Your task to perform on an android device: move an email to a new category in the gmail app Image 0: 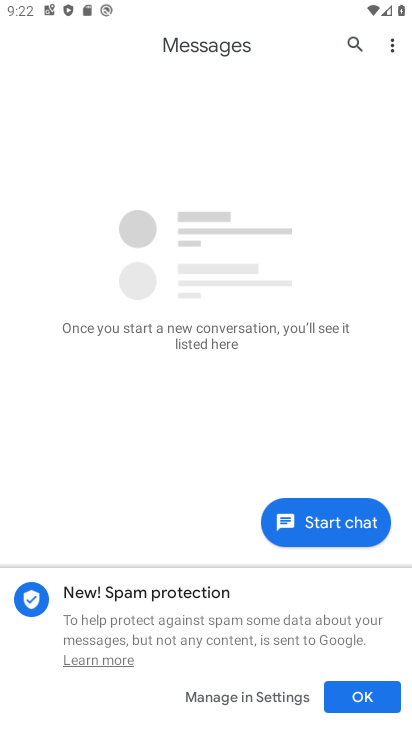
Step 0: press home button
Your task to perform on an android device: move an email to a new category in the gmail app Image 1: 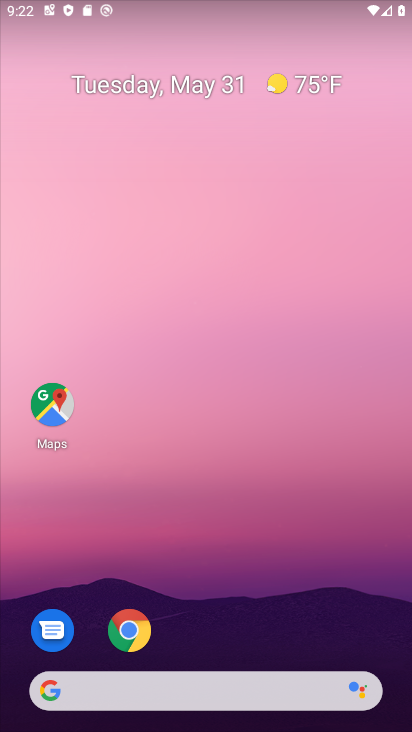
Step 1: drag from (242, 654) to (249, 214)
Your task to perform on an android device: move an email to a new category in the gmail app Image 2: 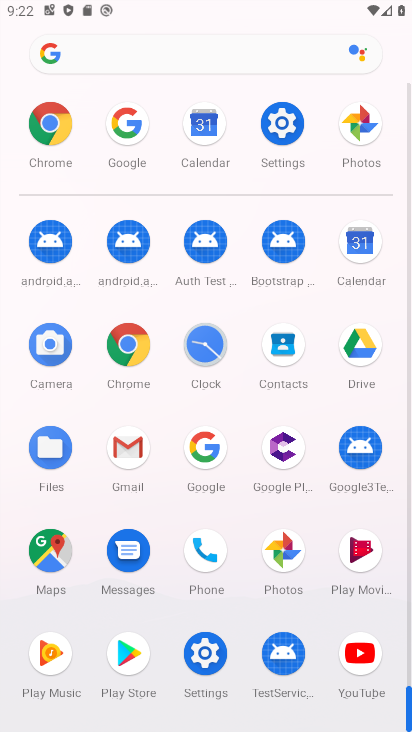
Step 2: drag from (247, 452) to (272, 222)
Your task to perform on an android device: move an email to a new category in the gmail app Image 3: 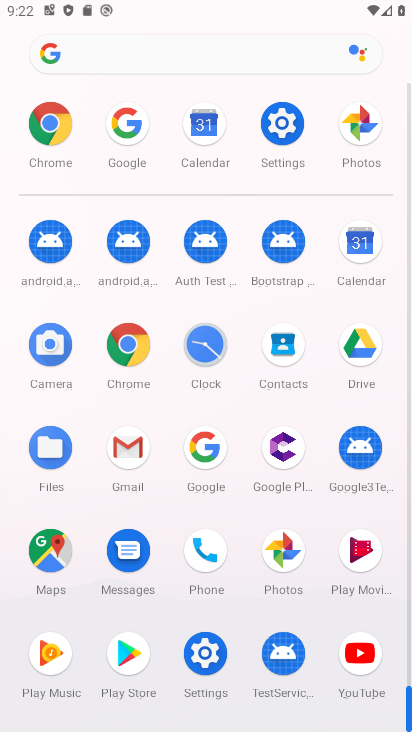
Step 3: click (131, 457)
Your task to perform on an android device: move an email to a new category in the gmail app Image 4: 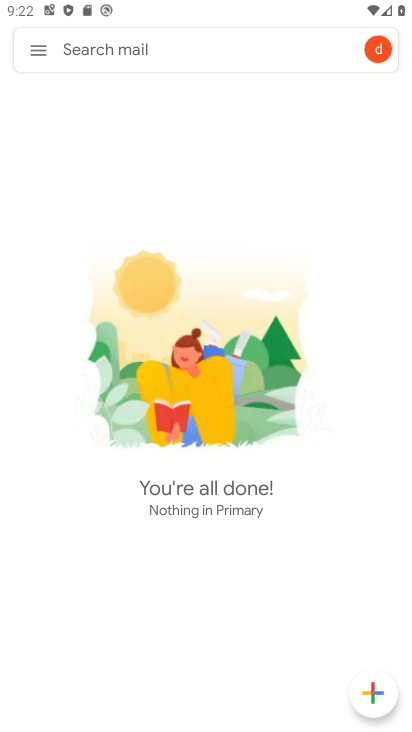
Step 4: click (34, 54)
Your task to perform on an android device: move an email to a new category in the gmail app Image 5: 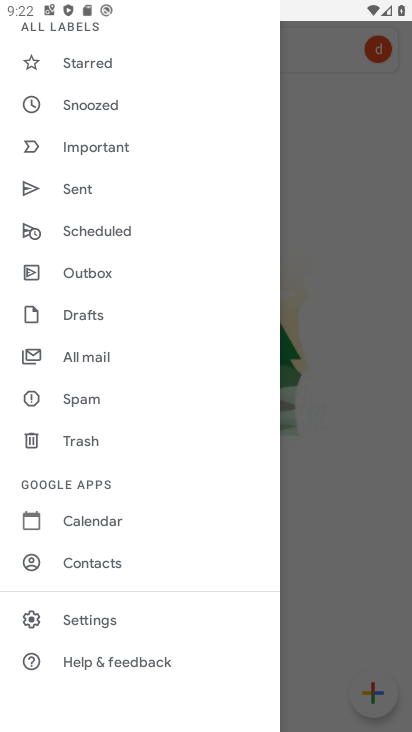
Step 5: click (93, 359)
Your task to perform on an android device: move an email to a new category in the gmail app Image 6: 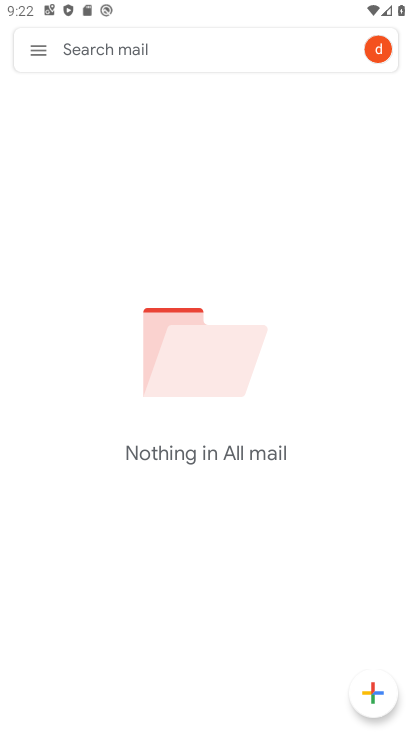
Step 6: task complete